Your task to perform on an android device: Open the phone app and click the voicemail tab. Image 0: 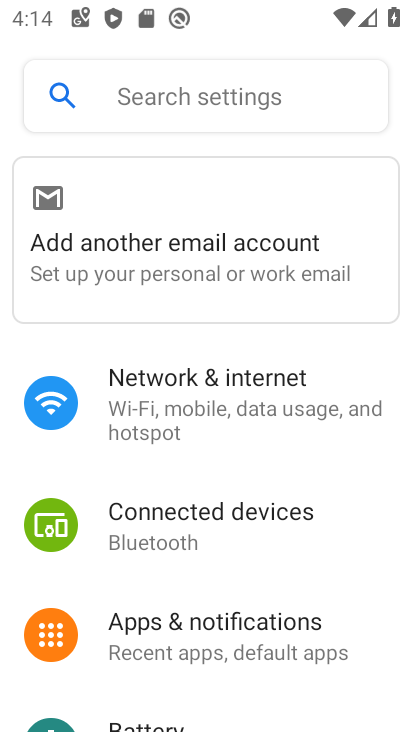
Step 0: drag from (228, 591) to (235, 409)
Your task to perform on an android device: Open the phone app and click the voicemail tab. Image 1: 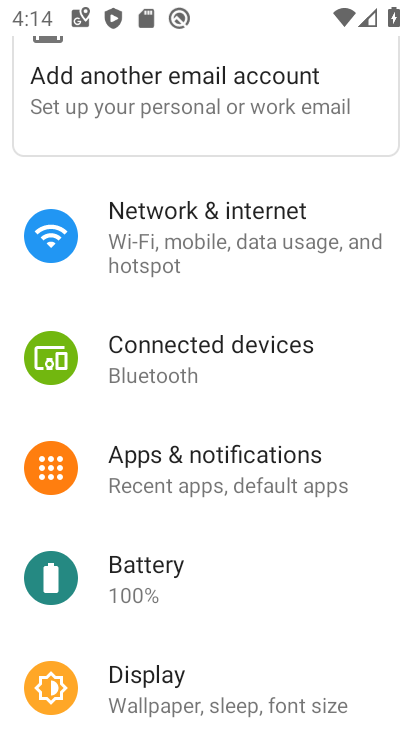
Step 1: press home button
Your task to perform on an android device: Open the phone app and click the voicemail tab. Image 2: 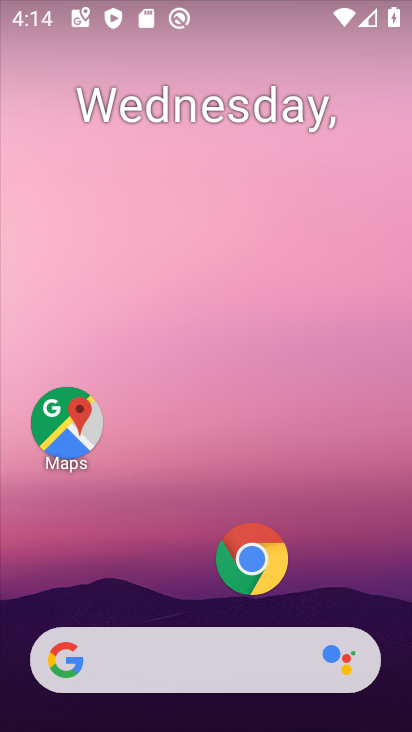
Step 2: drag from (251, 475) to (288, 183)
Your task to perform on an android device: Open the phone app and click the voicemail tab. Image 3: 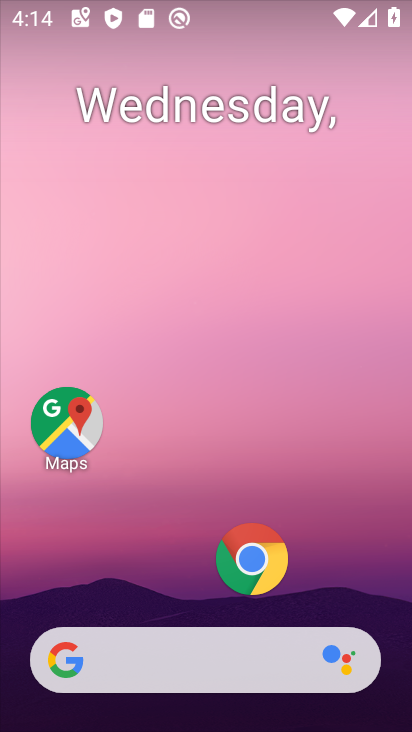
Step 3: drag from (91, 596) to (150, 139)
Your task to perform on an android device: Open the phone app and click the voicemail tab. Image 4: 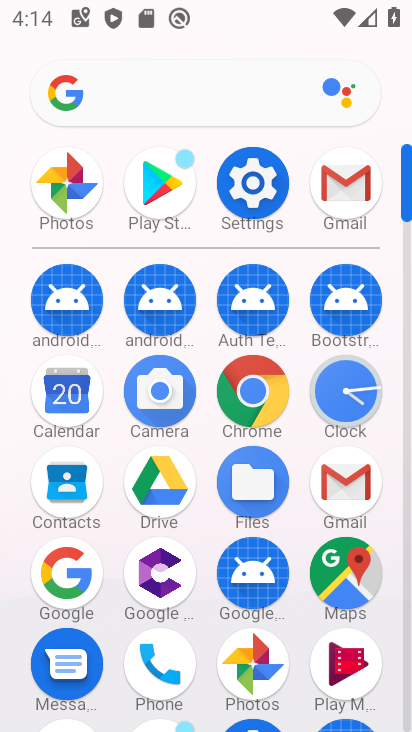
Step 4: click (162, 672)
Your task to perform on an android device: Open the phone app and click the voicemail tab. Image 5: 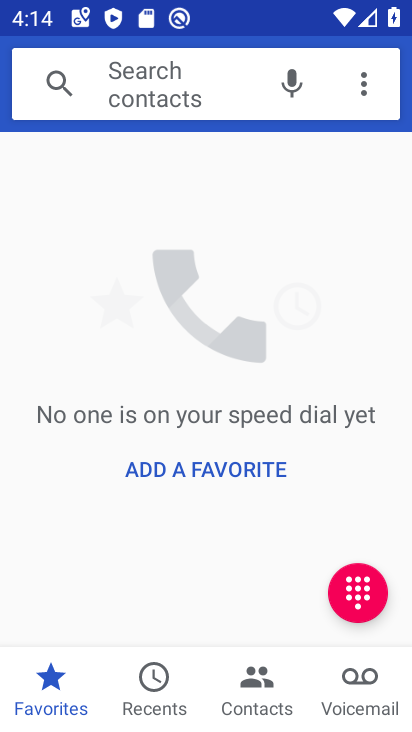
Step 5: click (386, 689)
Your task to perform on an android device: Open the phone app and click the voicemail tab. Image 6: 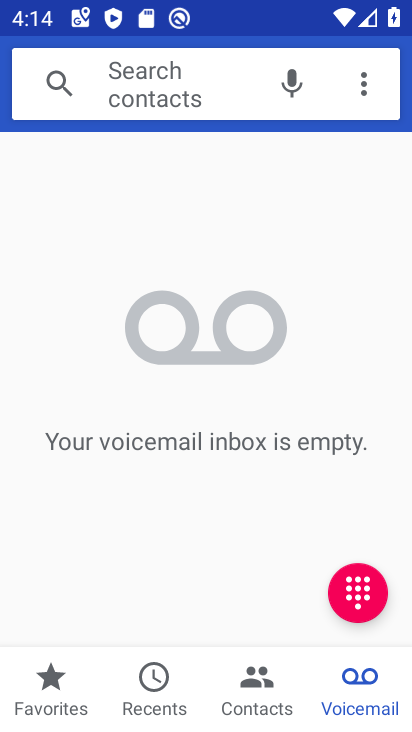
Step 6: task complete